Your task to perform on an android device: turn on notifications settings in the gmail app Image 0: 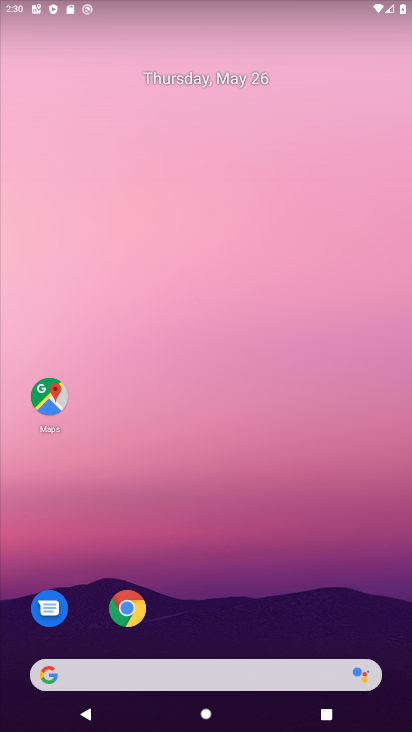
Step 0: drag from (317, 485) to (319, 108)
Your task to perform on an android device: turn on notifications settings in the gmail app Image 1: 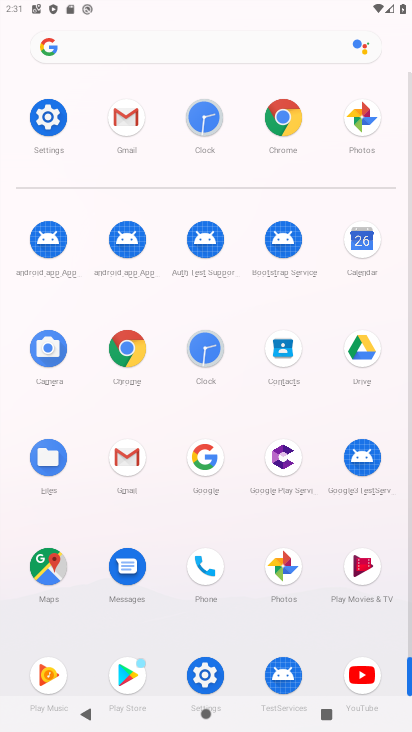
Step 1: click (121, 119)
Your task to perform on an android device: turn on notifications settings in the gmail app Image 2: 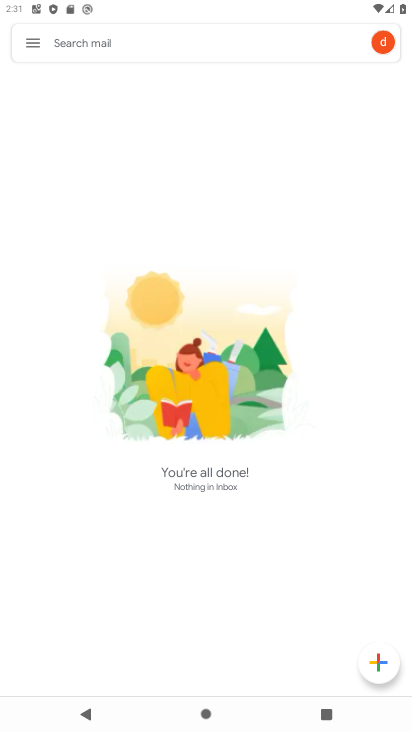
Step 2: click (29, 33)
Your task to perform on an android device: turn on notifications settings in the gmail app Image 3: 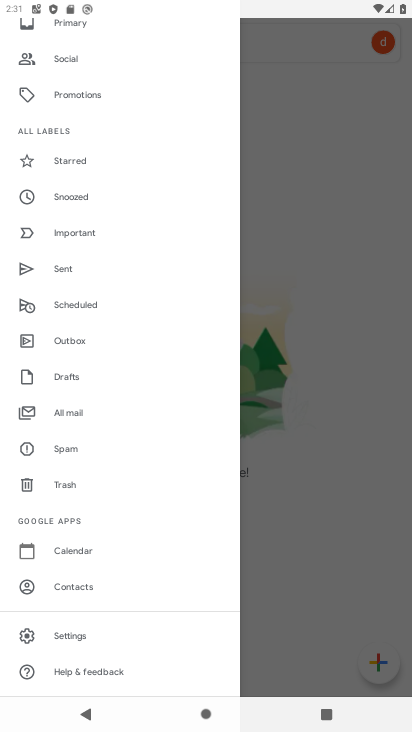
Step 3: click (77, 631)
Your task to perform on an android device: turn on notifications settings in the gmail app Image 4: 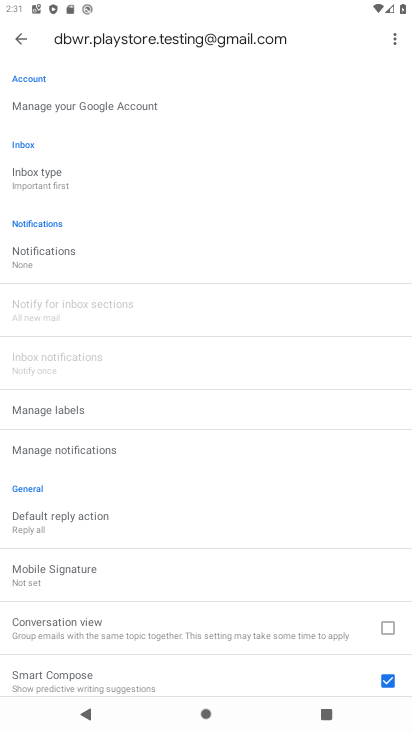
Step 4: click (56, 242)
Your task to perform on an android device: turn on notifications settings in the gmail app Image 5: 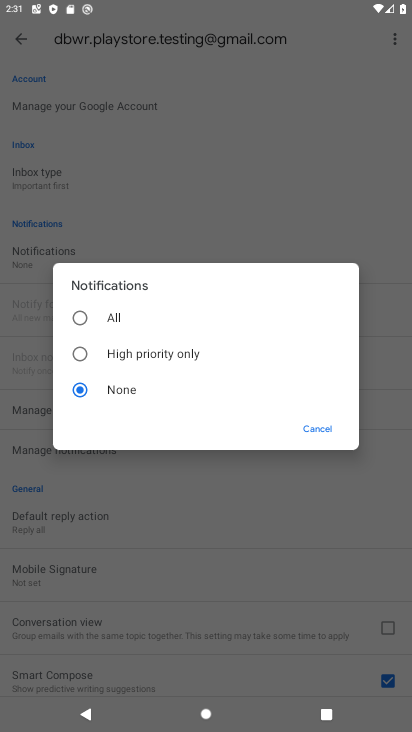
Step 5: click (100, 341)
Your task to perform on an android device: turn on notifications settings in the gmail app Image 6: 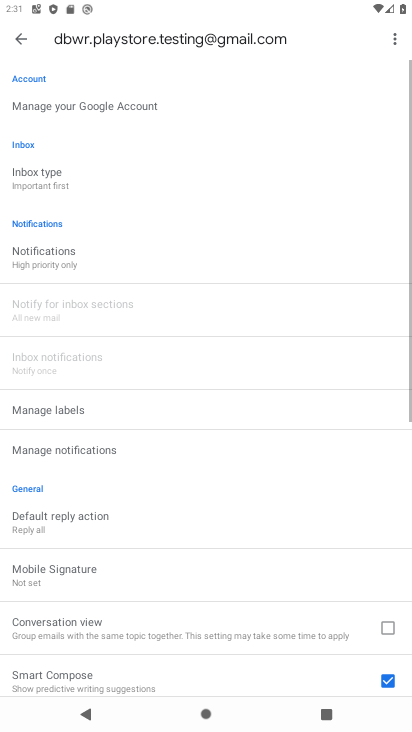
Step 6: task complete